Your task to perform on an android device: Open eBay Image 0: 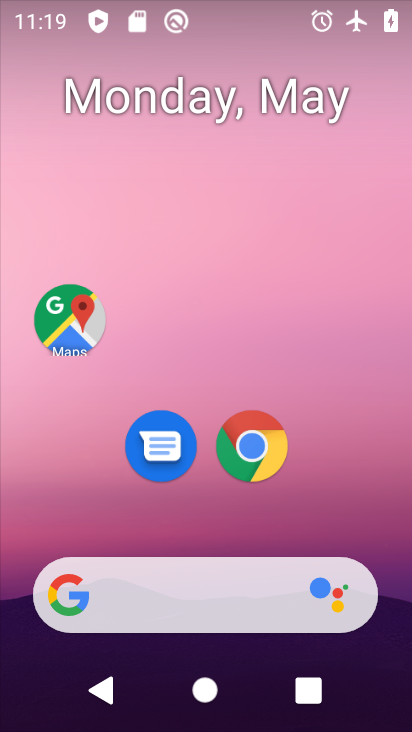
Step 0: click (244, 460)
Your task to perform on an android device: Open eBay Image 1: 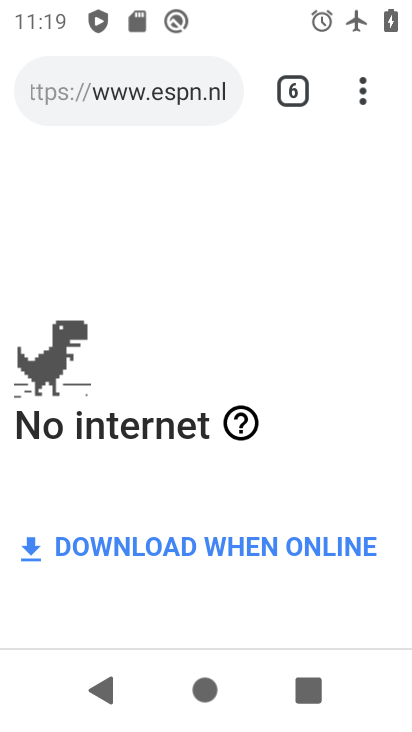
Step 1: click (309, 100)
Your task to perform on an android device: Open eBay Image 2: 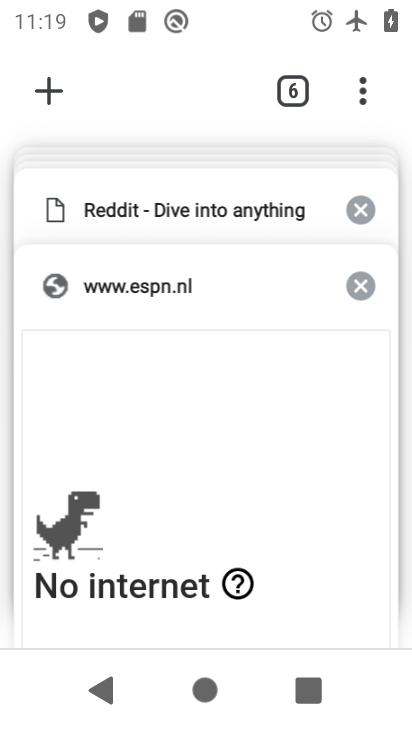
Step 2: drag from (232, 253) to (176, 551)
Your task to perform on an android device: Open eBay Image 3: 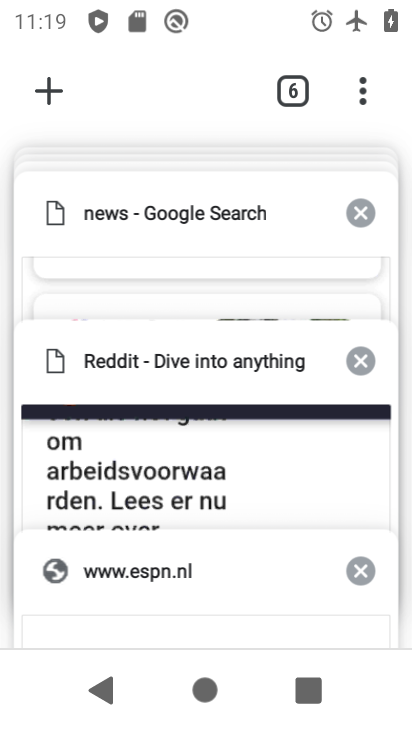
Step 3: drag from (255, 257) to (215, 506)
Your task to perform on an android device: Open eBay Image 4: 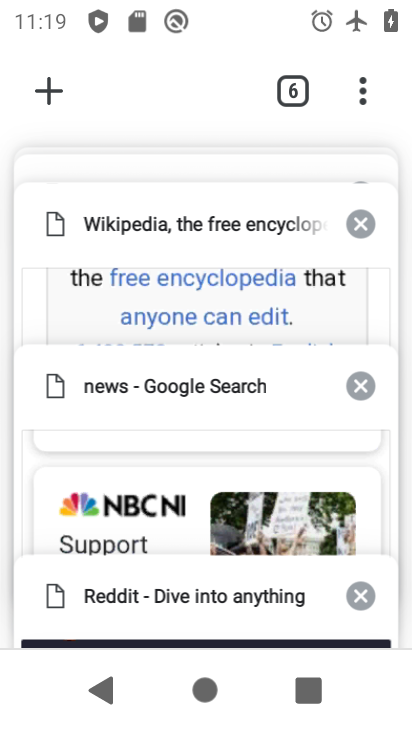
Step 4: drag from (75, 226) to (136, 533)
Your task to perform on an android device: Open eBay Image 5: 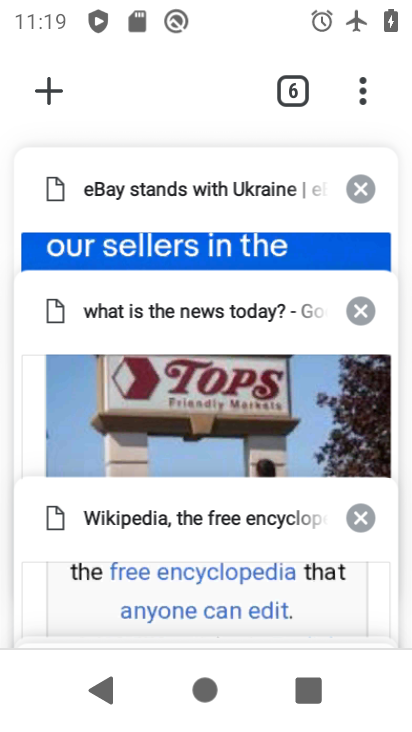
Step 5: click (180, 200)
Your task to perform on an android device: Open eBay Image 6: 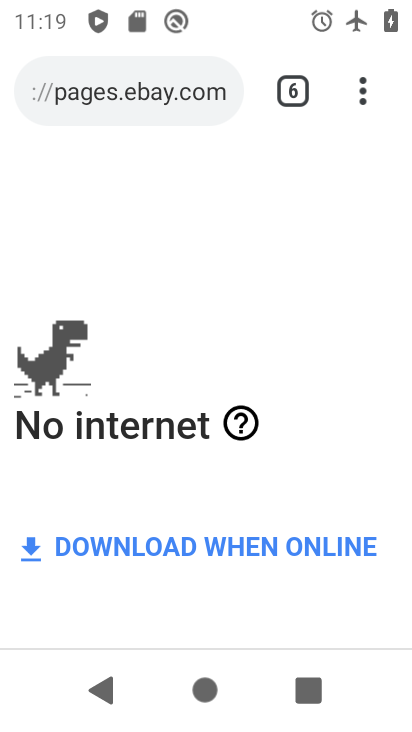
Step 6: task complete